Your task to perform on an android device: Show me the alarms in the clock app Image 0: 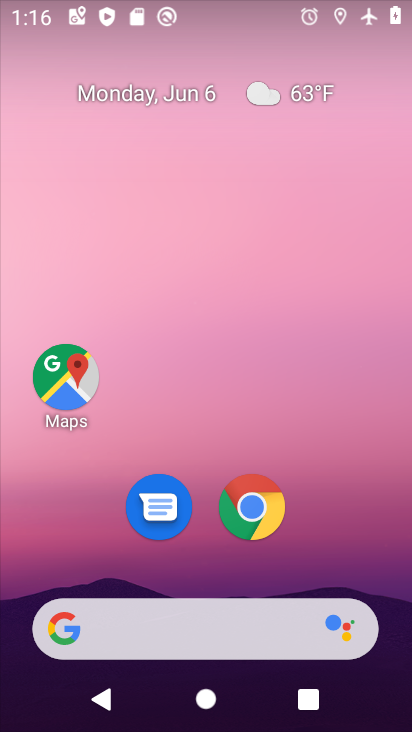
Step 0: drag from (215, 428) to (218, 0)
Your task to perform on an android device: Show me the alarms in the clock app Image 1: 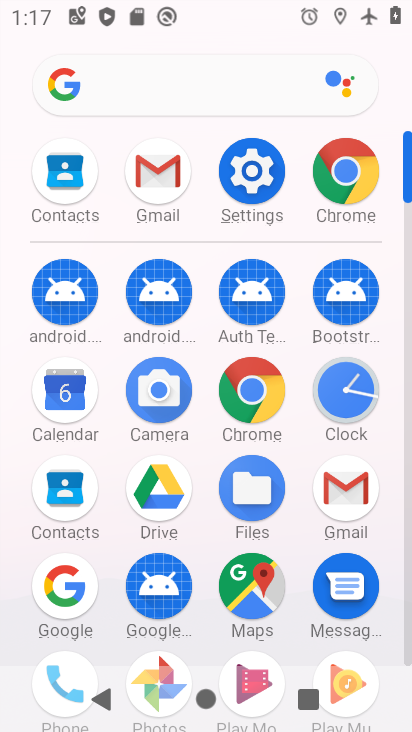
Step 1: click (341, 384)
Your task to perform on an android device: Show me the alarms in the clock app Image 2: 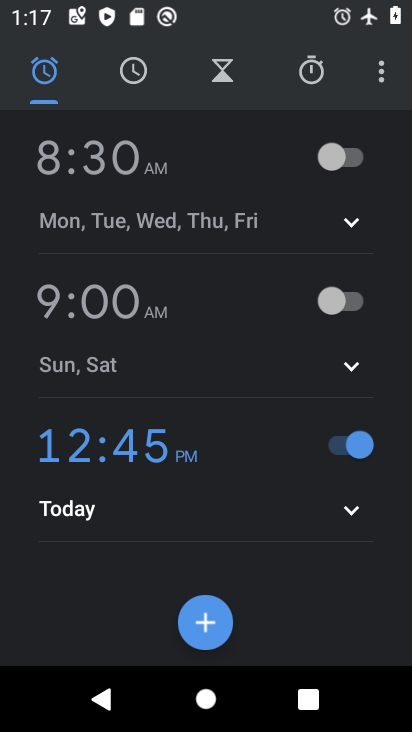
Step 2: task complete